Your task to perform on an android device: What's on the menu at Panera? Image 0: 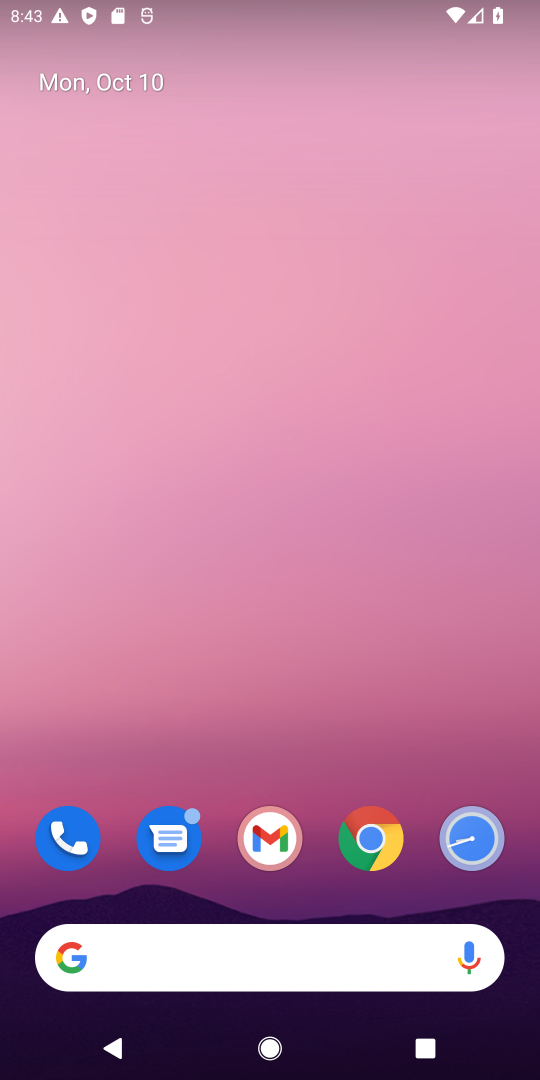
Step 0: drag from (282, 871) to (195, 96)
Your task to perform on an android device: What's on the menu at Panera? Image 1: 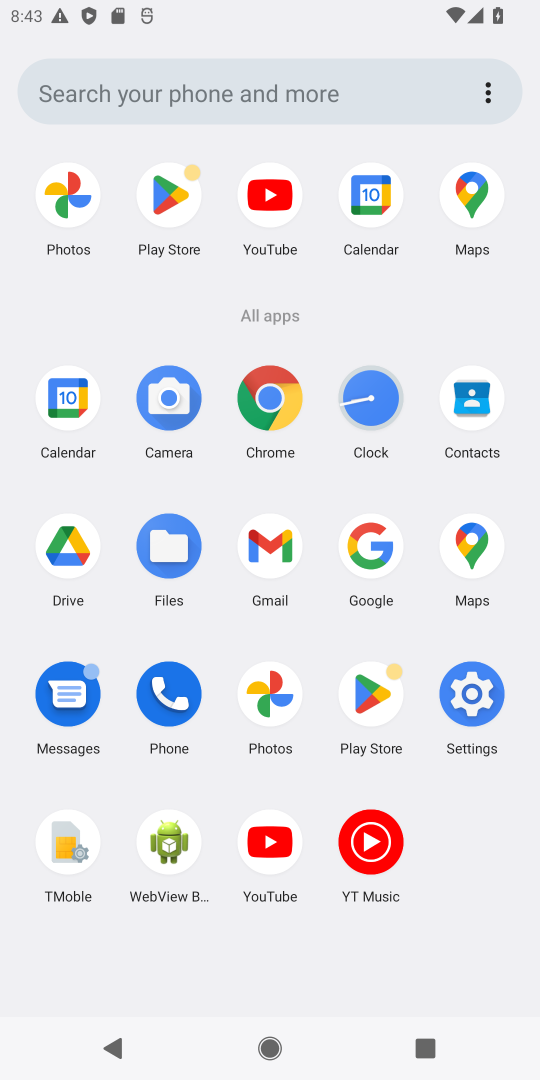
Step 1: drag from (413, 1068) to (271, 1073)
Your task to perform on an android device: What's on the menu at Panera? Image 2: 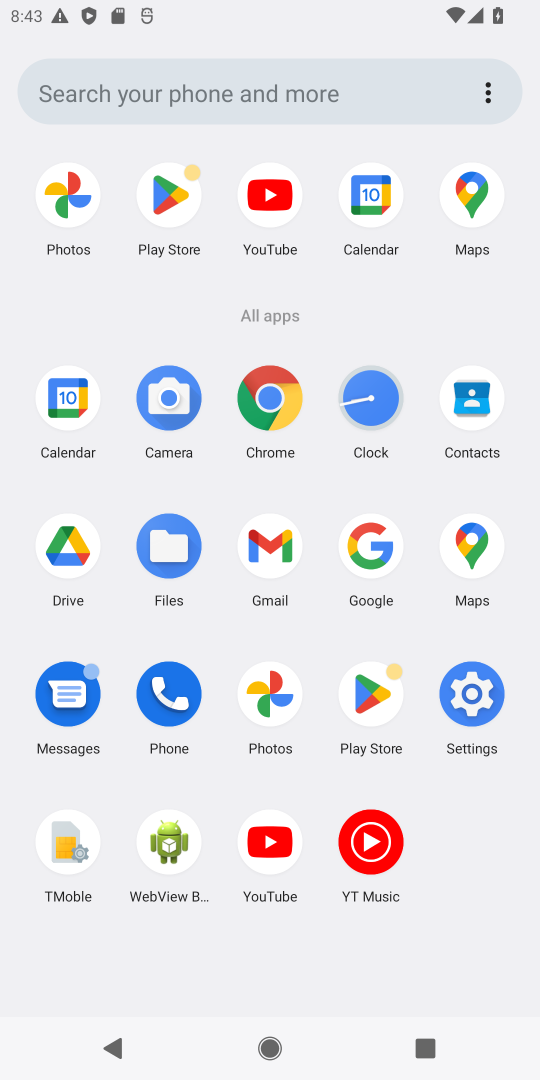
Step 2: click (265, 404)
Your task to perform on an android device: What's on the menu at Panera? Image 3: 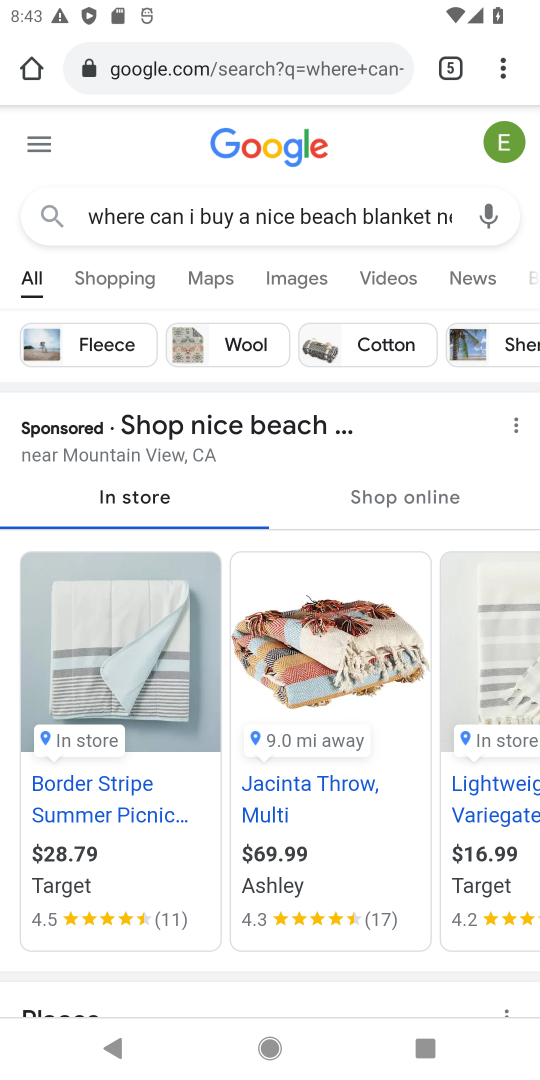
Step 3: click (375, 204)
Your task to perform on an android device: What's on the menu at Panera? Image 4: 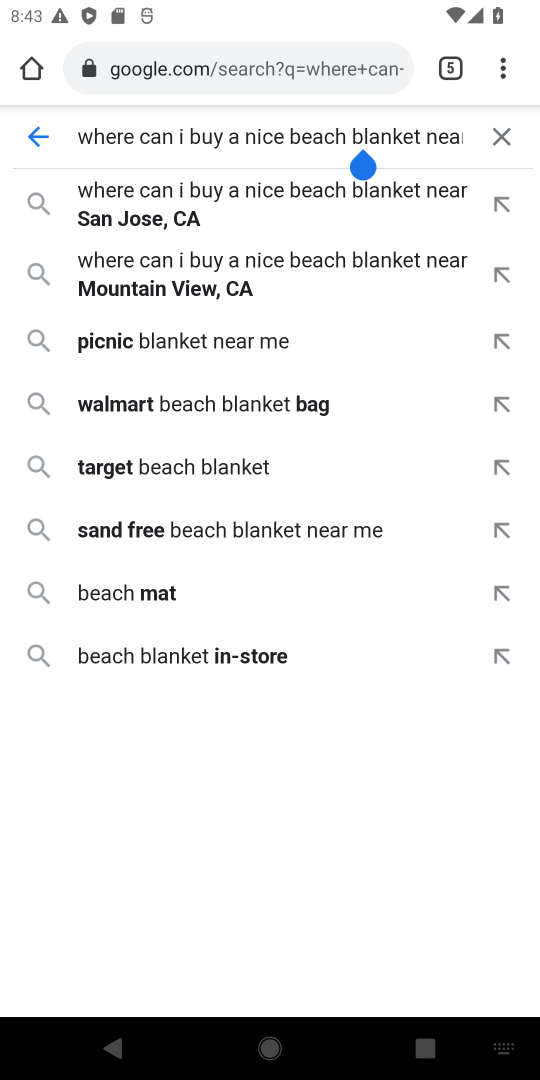
Step 4: click (492, 131)
Your task to perform on an android device: What's on the menu at Panera? Image 5: 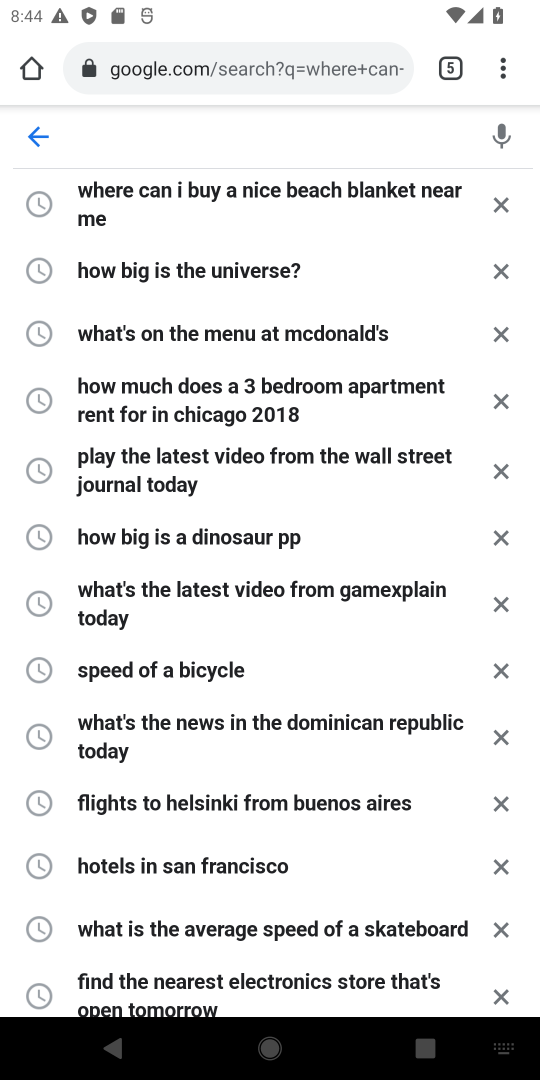
Step 5: type "What's on the menu at Panera?"
Your task to perform on an android device: What's on the menu at Panera? Image 6: 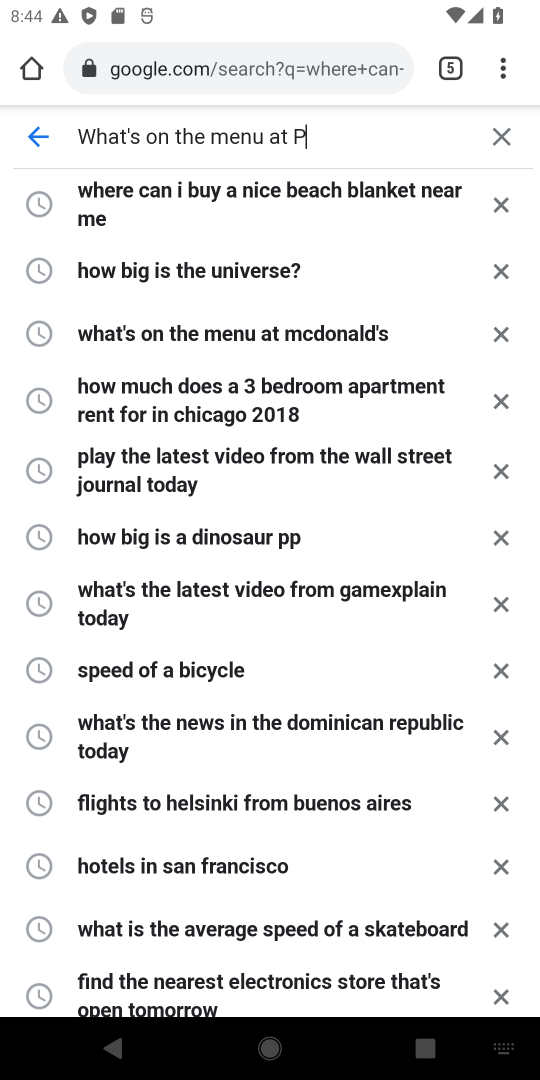
Step 6: type ""
Your task to perform on an android device: What's on the menu at Panera? Image 7: 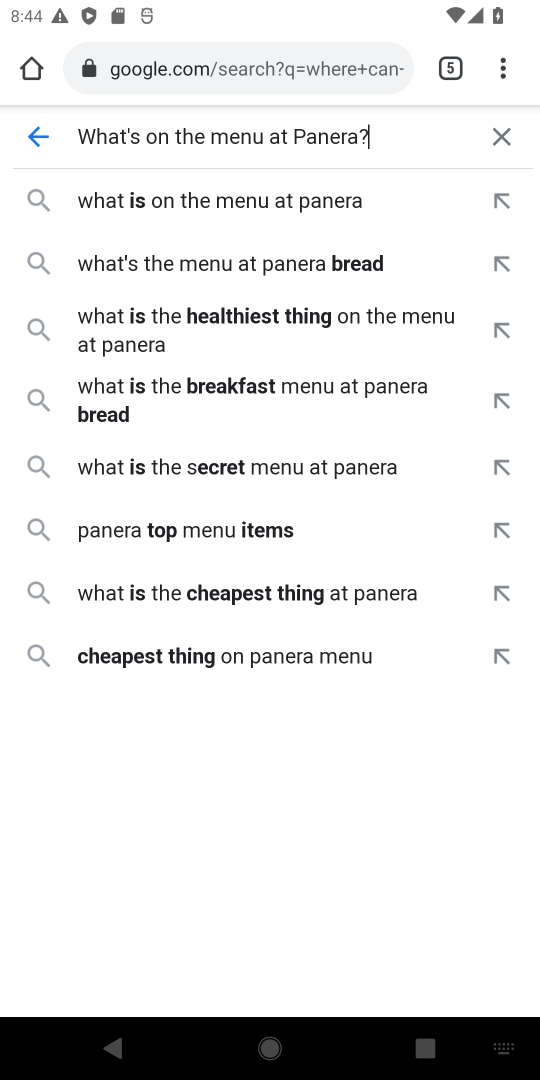
Step 7: click (275, 196)
Your task to perform on an android device: What's on the menu at Panera? Image 8: 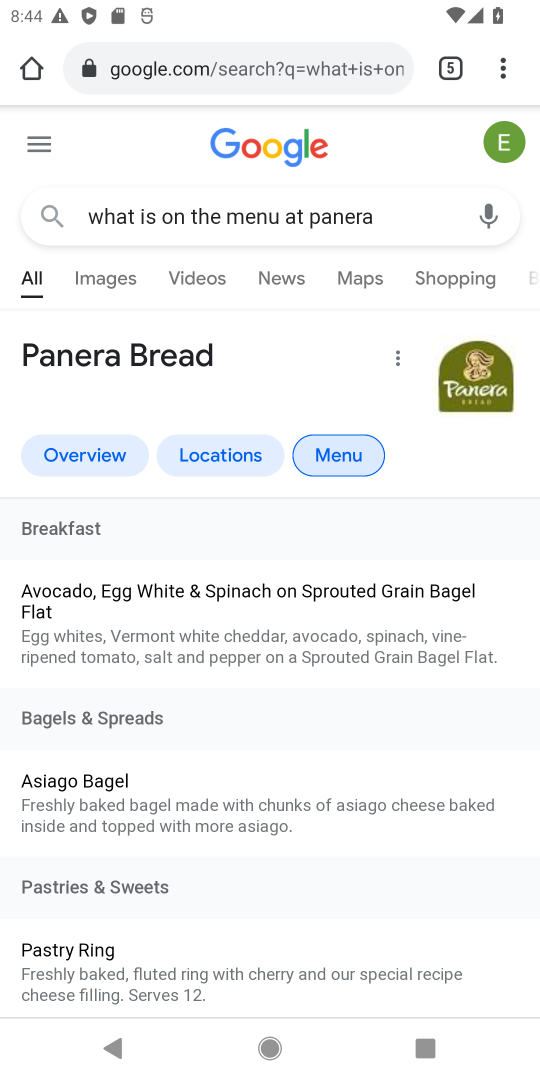
Step 8: task complete